Your task to perform on an android device: snooze an email in the gmail app Image 0: 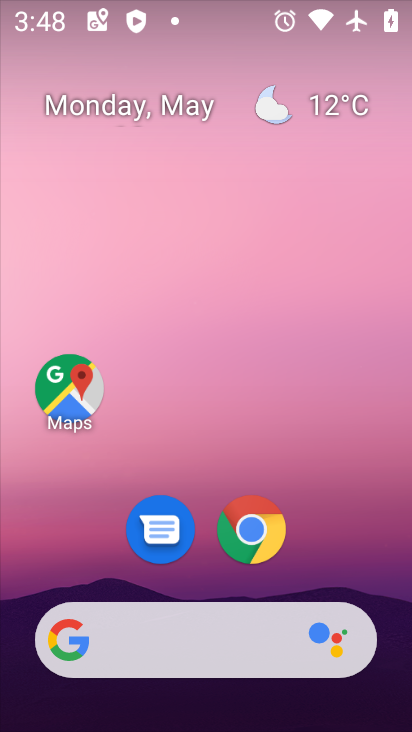
Step 0: drag from (322, 547) to (317, 43)
Your task to perform on an android device: snooze an email in the gmail app Image 1: 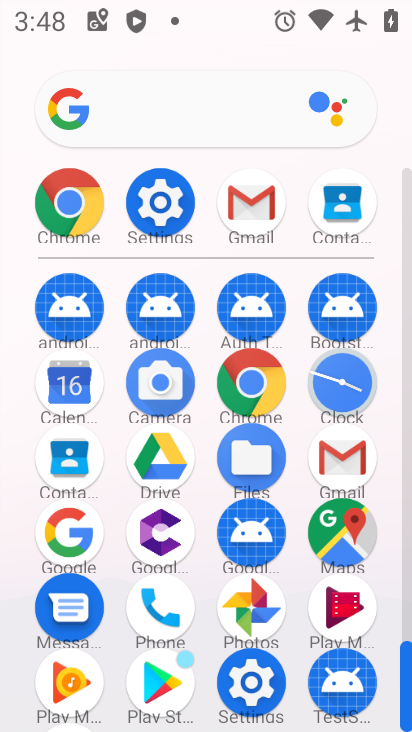
Step 1: click (353, 452)
Your task to perform on an android device: snooze an email in the gmail app Image 2: 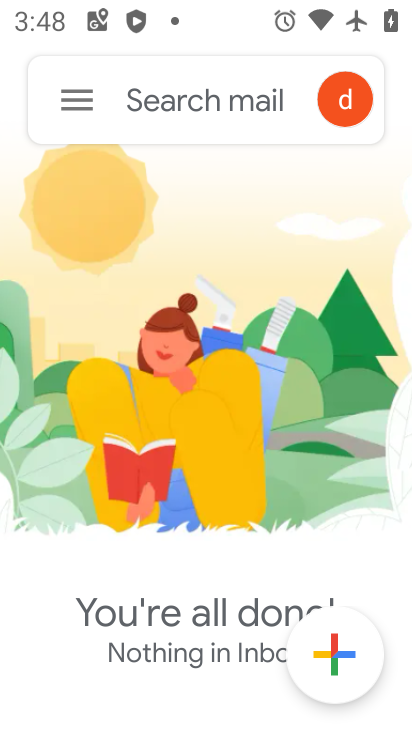
Step 2: click (83, 96)
Your task to perform on an android device: snooze an email in the gmail app Image 3: 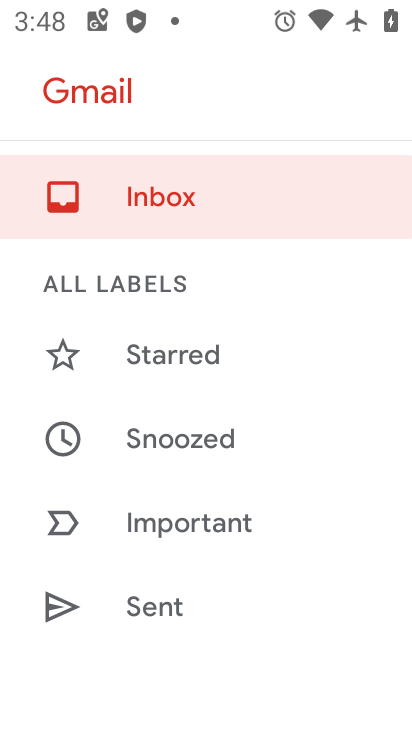
Step 3: drag from (223, 529) to (219, 200)
Your task to perform on an android device: snooze an email in the gmail app Image 4: 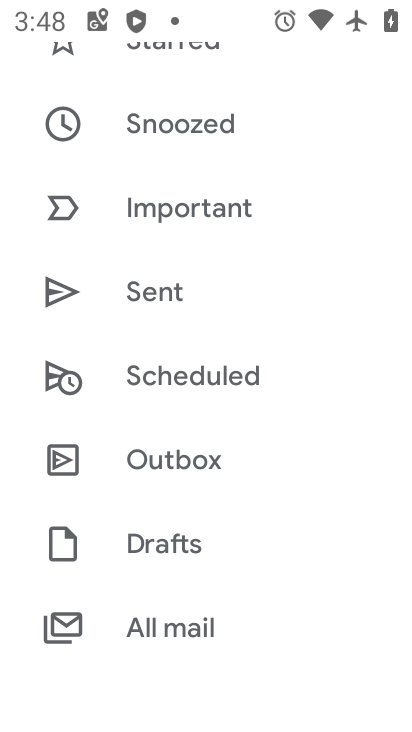
Step 4: click (170, 627)
Your task to perform on an android device: snooze an email in the gmail app Image 5: 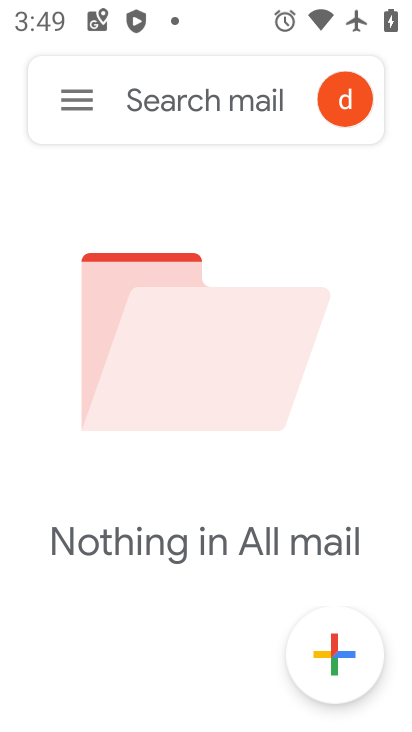
Step 5: task complete